Your task to perform on an android device: empty trash in the gmail app Image 0: 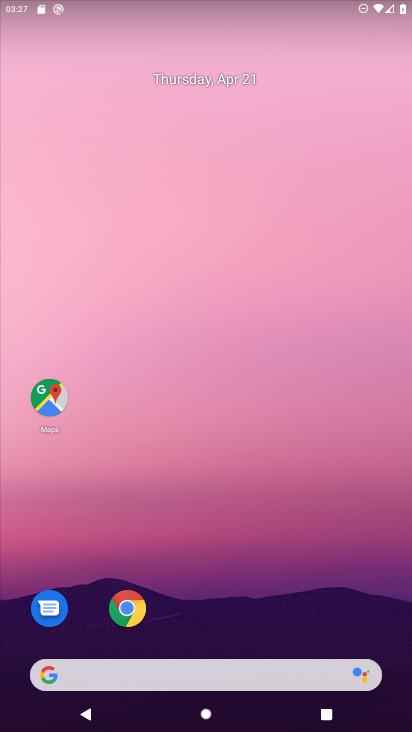
Step 0: click (283, 201)
Your task to perform on an android device: empty trash in the gmail app Image 1: 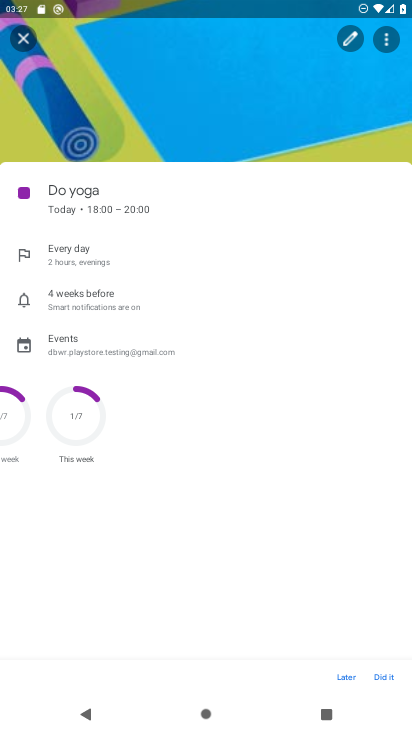
Step 1: press home button
Your task to perform on an android device: empty trash in the gmail app Image 2: 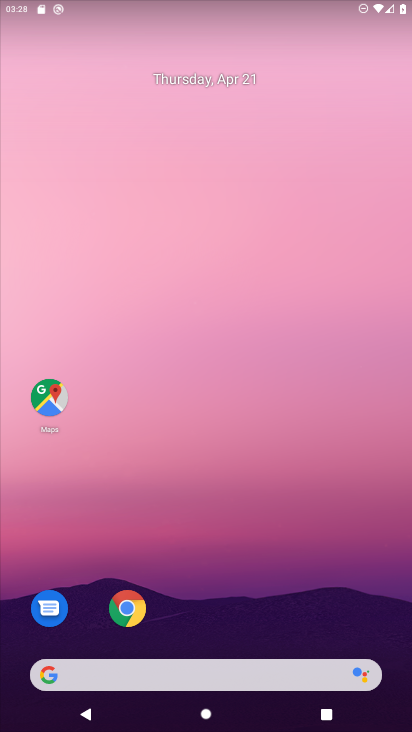
Step 2: drag from (261, 689) to (220, 66)
Your task to perform on an android device: empty trash in the gmail app Image 3: 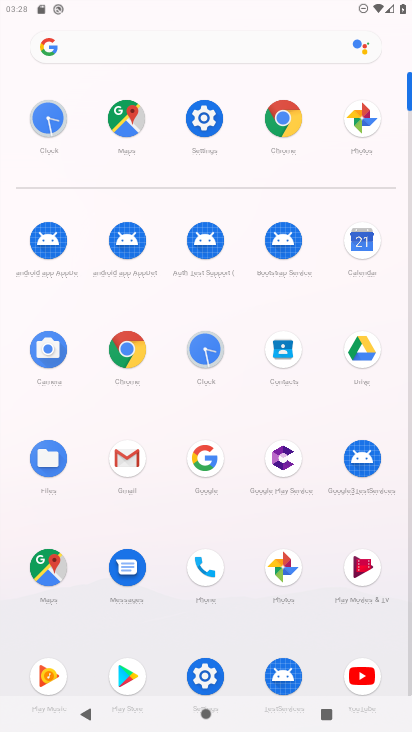
Step 3: click (131, 456)
Your task to perform on an android device: empty trash in the gmail app Image 4: 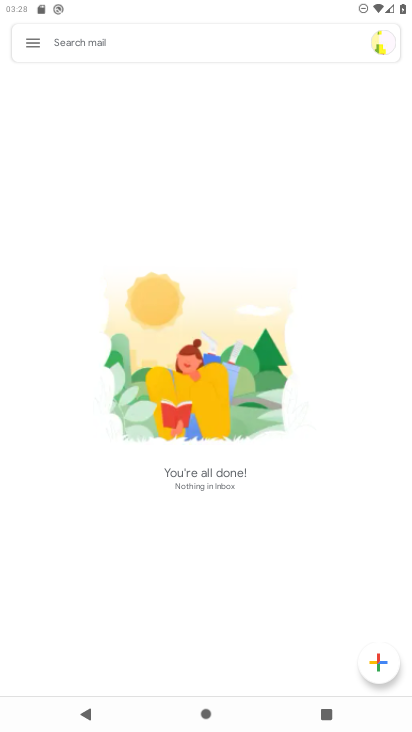
Step 4: click (31, 46)
Your task to perform on an android device: empty trash in the gmail app Image 5: 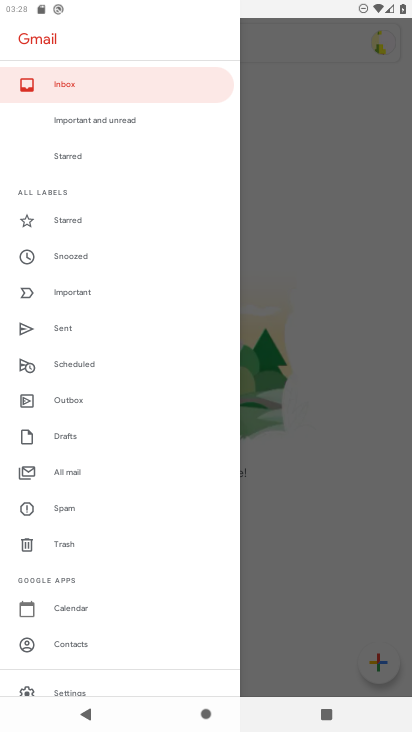
Step 5: click (71, 540)
Your task to perform on an android device: empty trash in the gmail app Image 6: 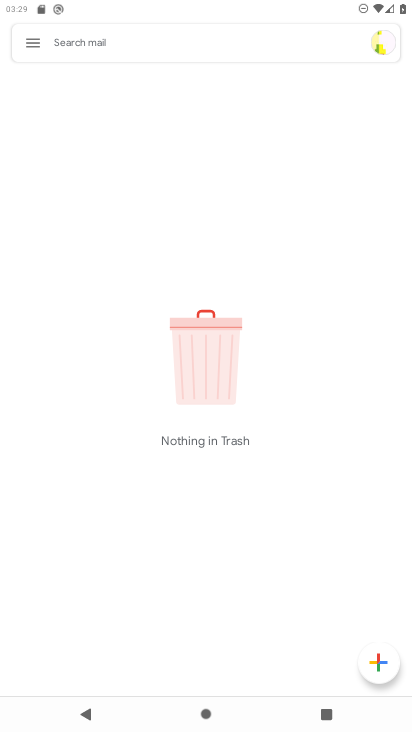
Step 6: task complete